Your task to perform on an android device: View the shopping cart on target.com. Image 0: 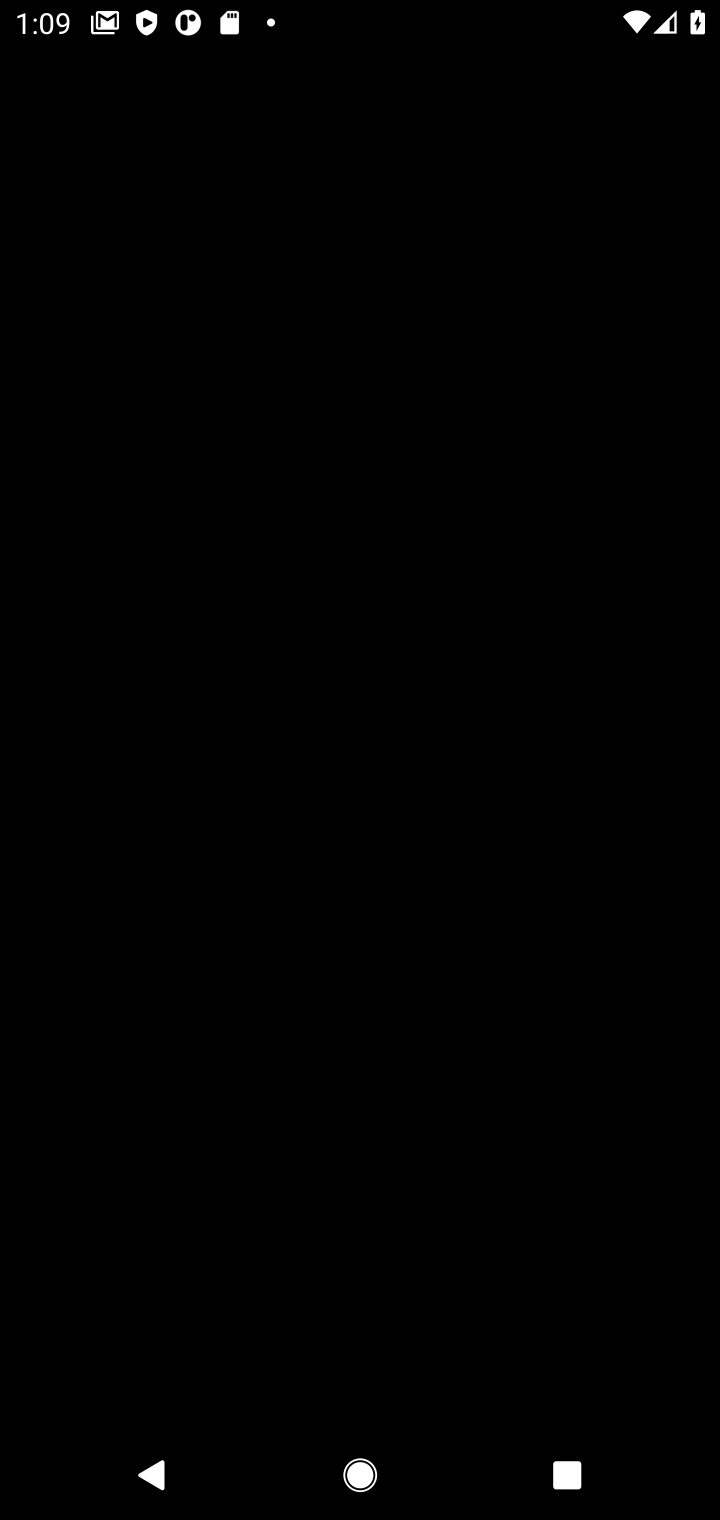
Step 0: press home button
Your task to perform on an android device: View the shopping cart on target.com. Image 1: 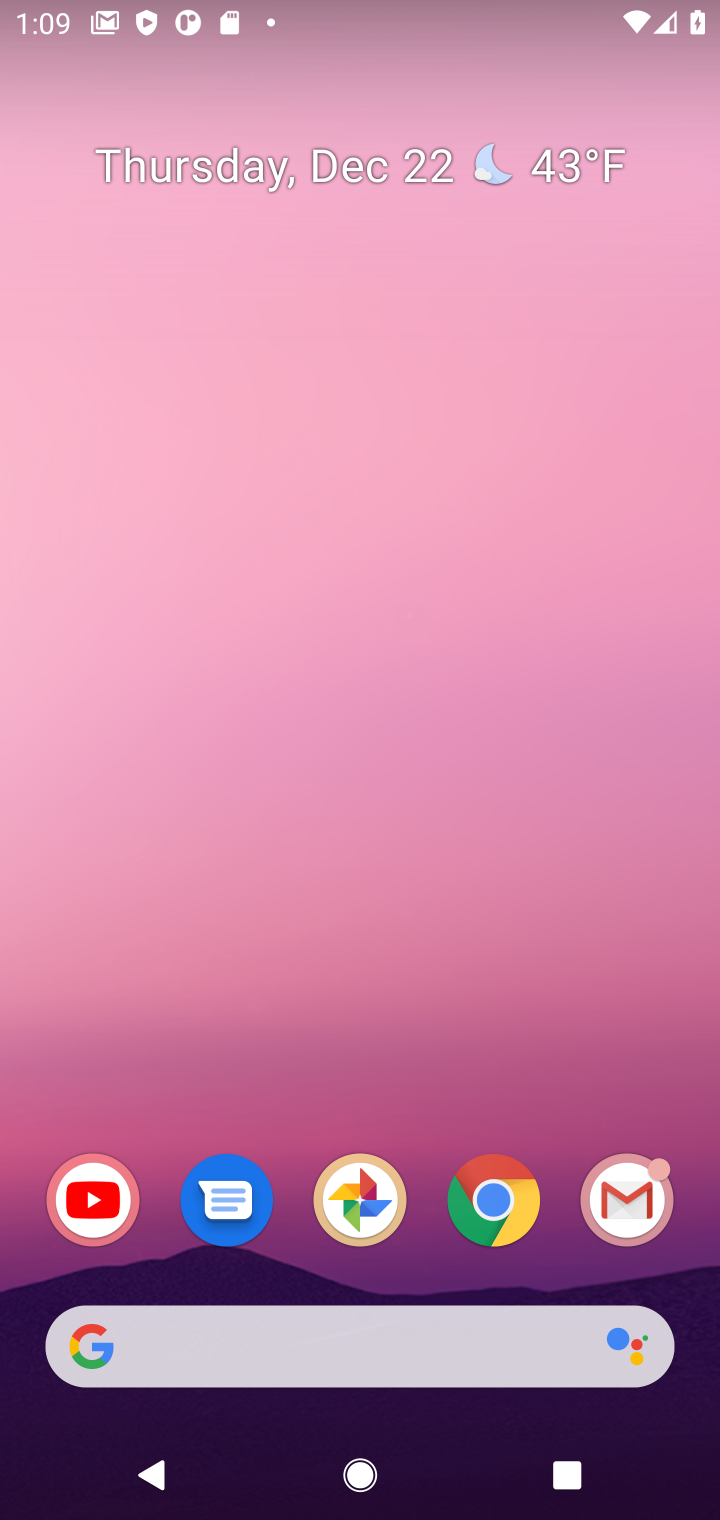
Step 1: click (497, 1224)
Your task to perform on an android device: View the shopping cart on target.com. Image 2: 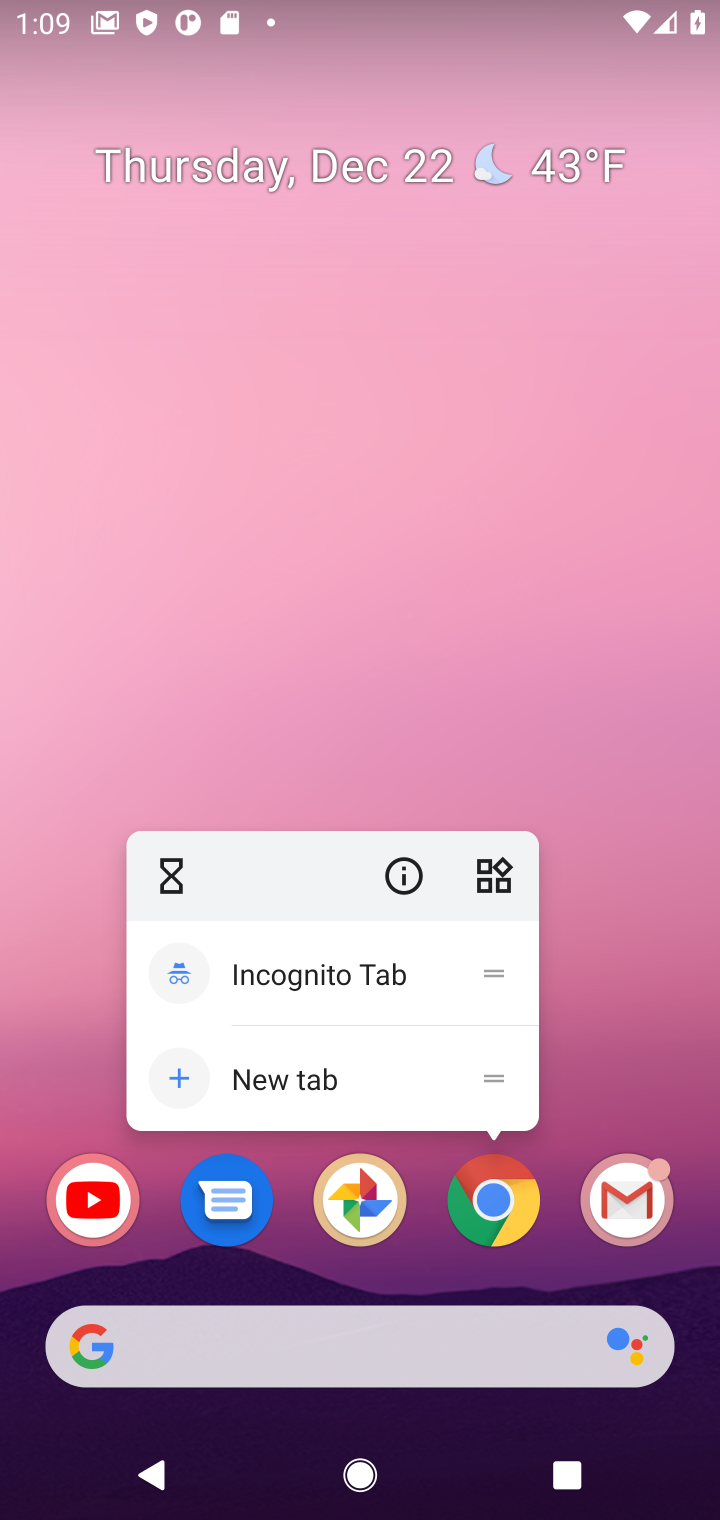
Step 2: click (497, 1206)
Your task to perform on an android device: View the shopping cart on target.com. Image 3: 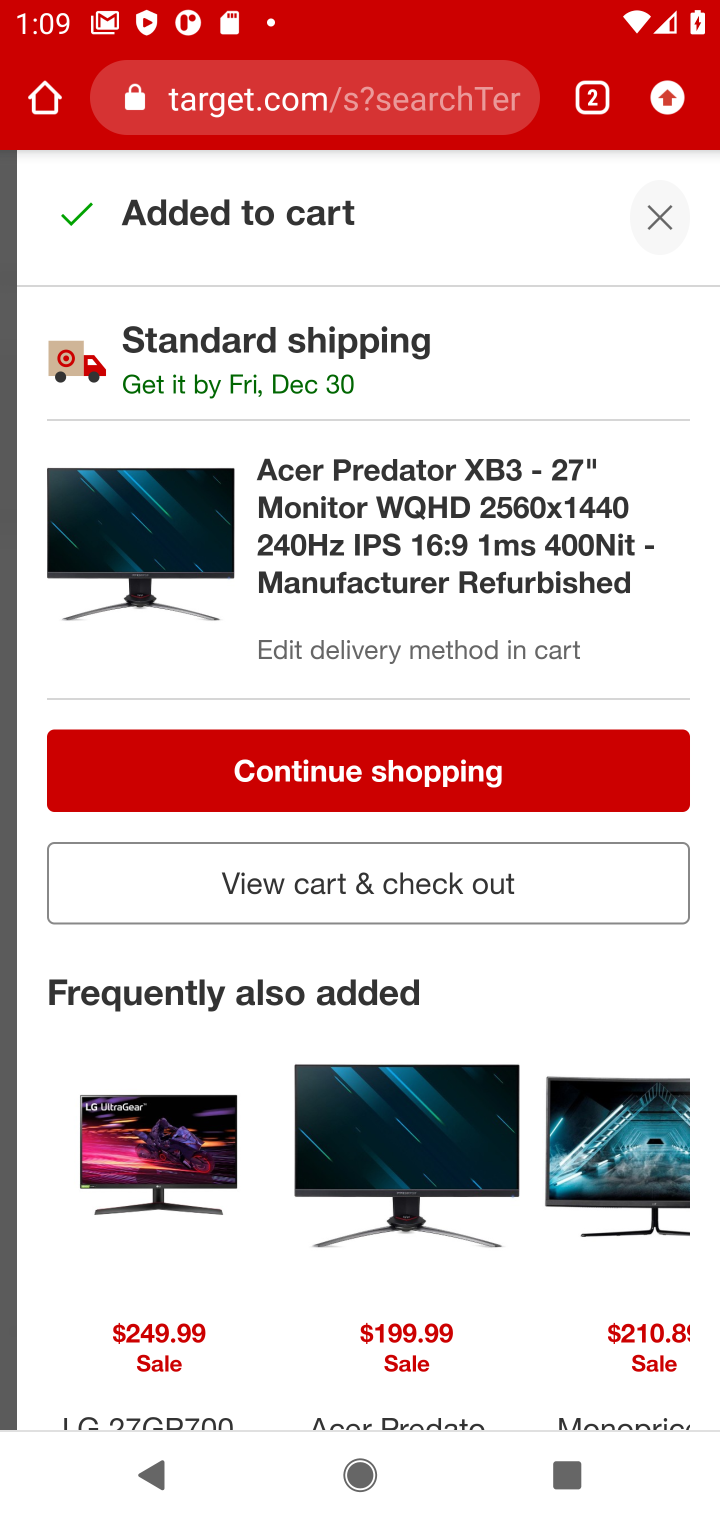
Step 3: click (663, 212)
Your task to perform on an android device: View the shopping cart on target.com. Image 4: 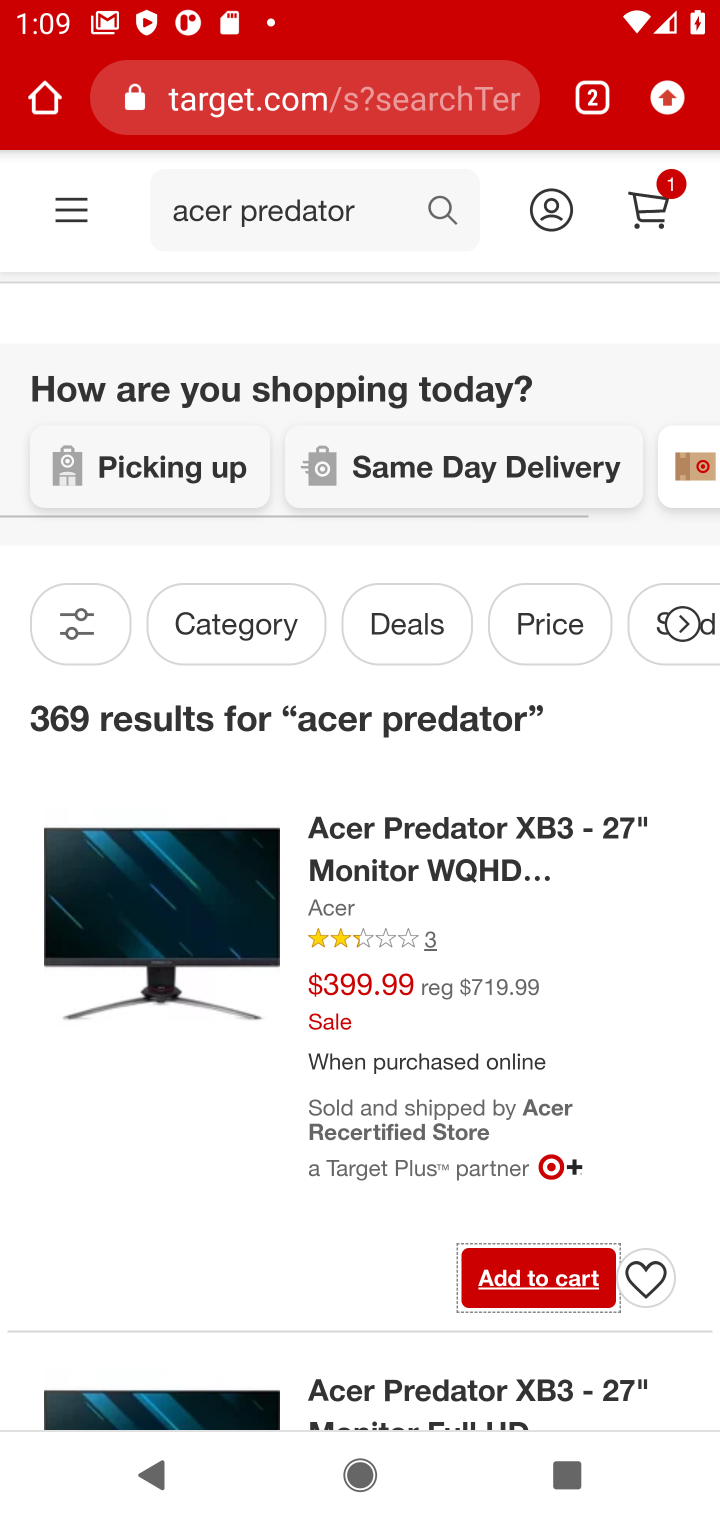
Step 4: click (652, 201)
Your task to perform on an android device: View the shopping cart on target.com. Image 5: 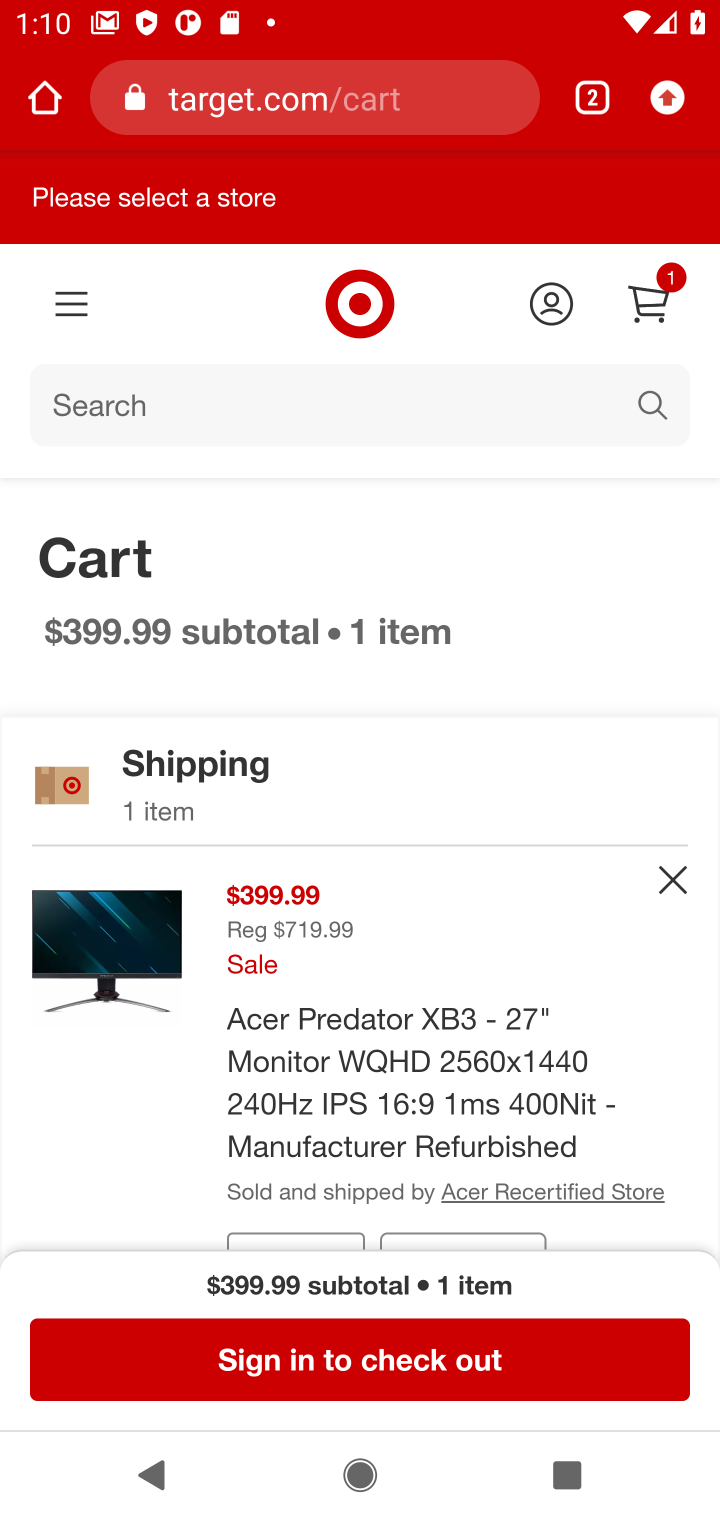
Step 5: task complete